Your task to perform on an android device: Open calendar and show me the third week of next month Image 0: 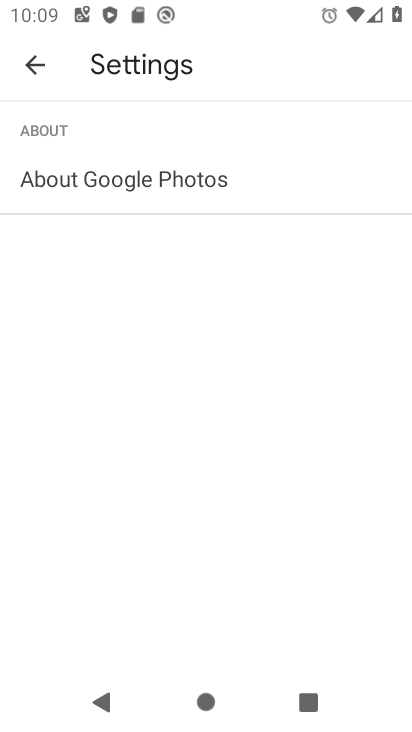
Step 0: press home button
Your task to perform on an android device: Open calendar and show me the third week of next month Image 1: 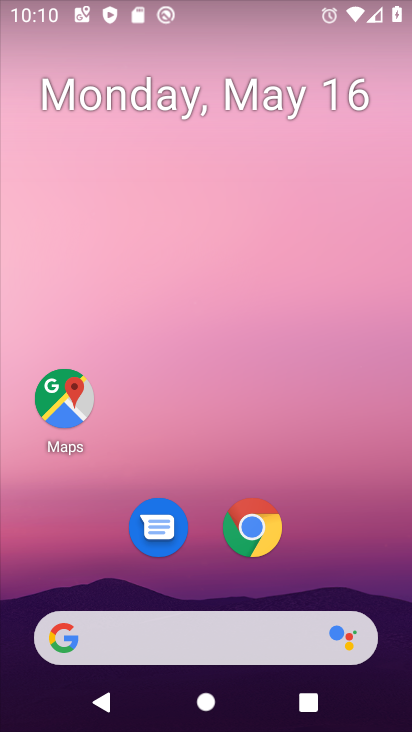
Step 1: drag from (338, 594) to (368, 5)
Your task to perform on an android device: Open calendar and show me the third week of next month Image 2: 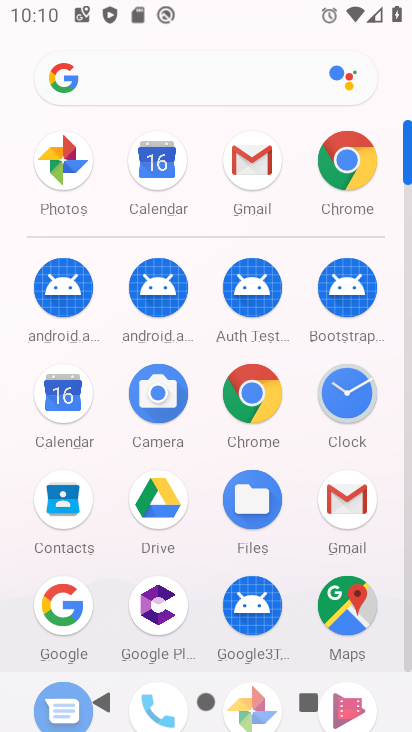
Step 2: click (159, 169)
Your task to perform on an android device: Open calendar and show me the third week of next month Image 3: 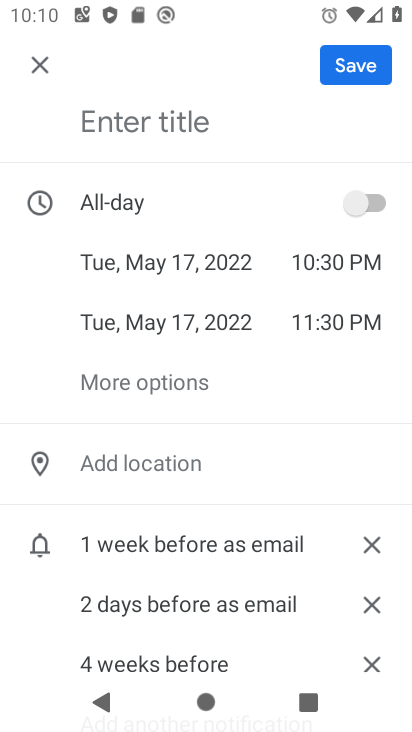
Step 3: click (26, 64)
Your task to perform on an android device: Open calendar and show me the third week of next month Image 4: 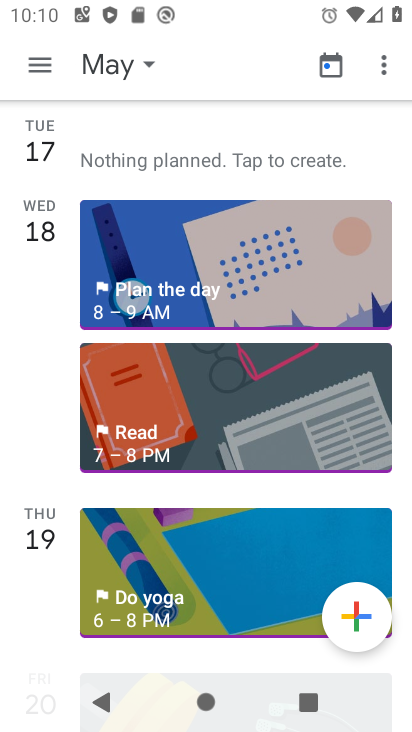
Step 4: click (150, 63)
Your task to perform on an android device: Open calendar and show me the third week of next month Image 5: 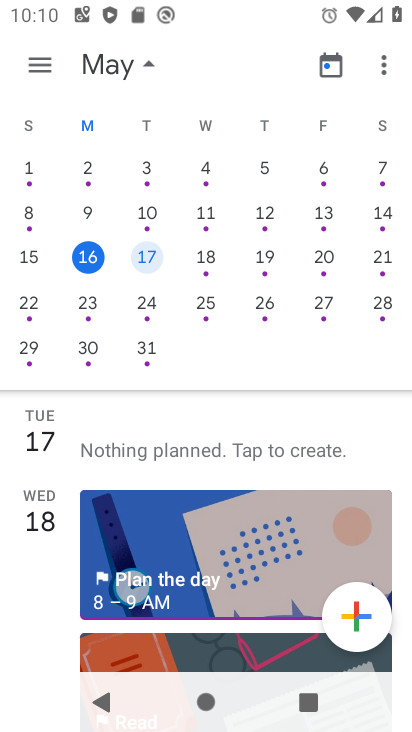
Step 5: drag from (334, 239) to (14, 211)
Your task to perform on an android device: Open calendar and show me the third week of next month Image 6: 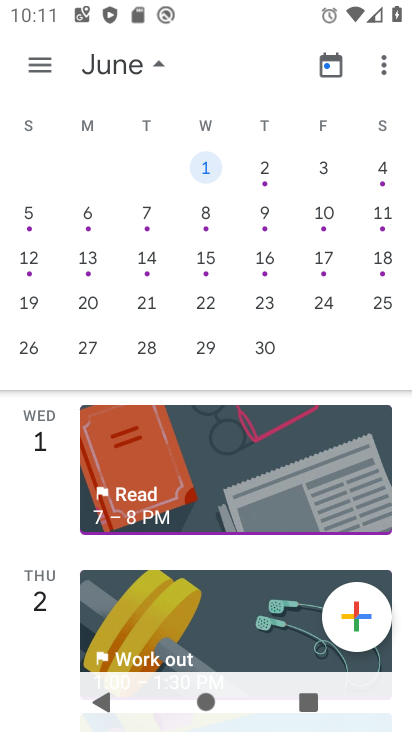
Step 6: click (36, 65)
Your task to perform on an android device: Open calendar and show me the third week of next month Image 7: 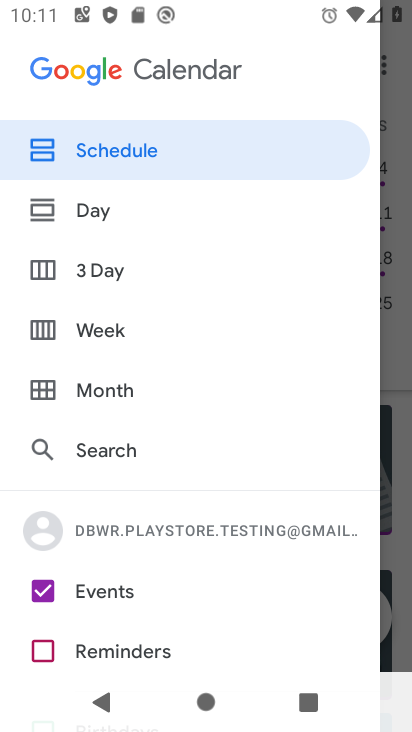
Step 7: click (93, 328)
Your task to perform on an android device: Open calendar and show me the third week of next month Image 8: 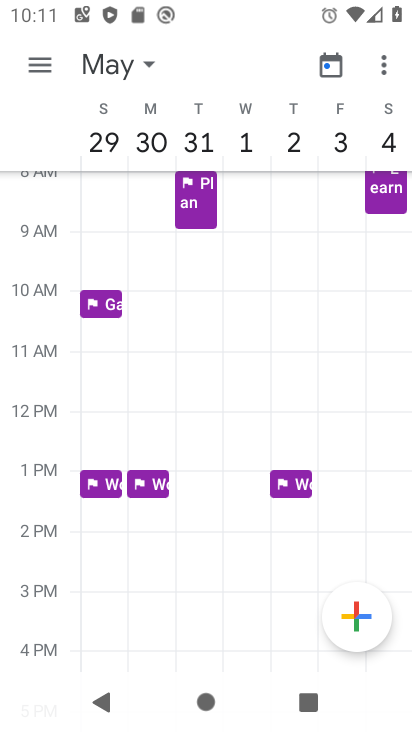
Step 8: task complete